Your task to perform on an android device: see creations saved in the google photos Image 0: 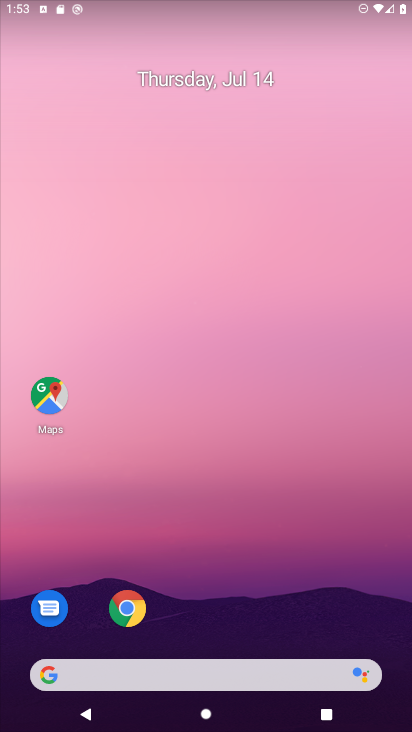
Step 0: drag from (378, 636) to (351, 189)
Your task to perform on an android device: see creations saved in the google photos Image 1: 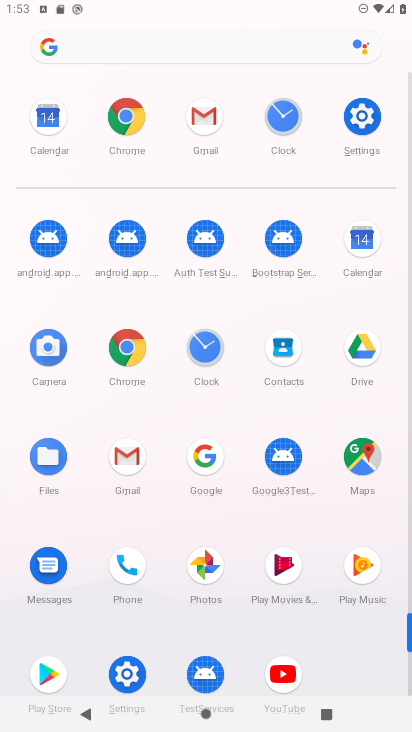
Step 1: click (206, 568)
Your task to perform on an android device: see creations saved in the google photos Image 2: 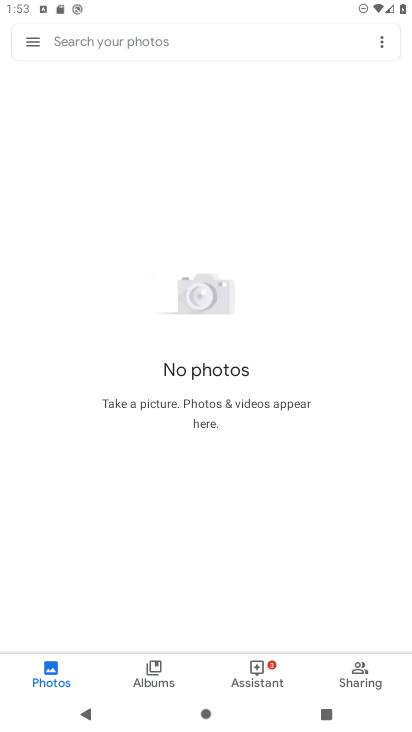
Step 2: task complete